Your task to perform on an android device: make emails show in primary in the gmail app Image 0: 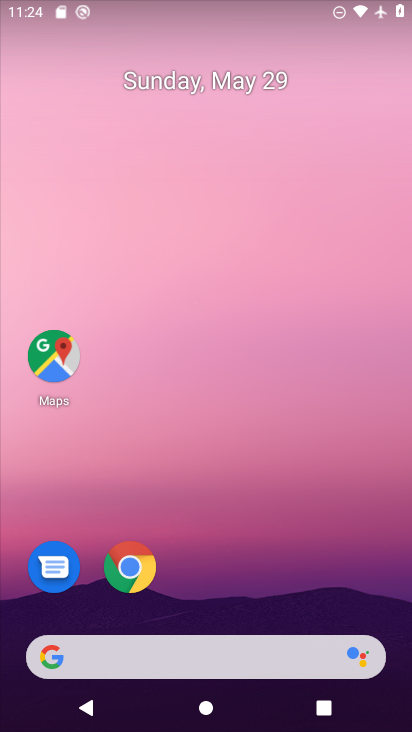
Step 0: drag from (358, 601) to (323, 40)
Your task to perform on an android device: make emails show in primary in the gmail app Image 1: 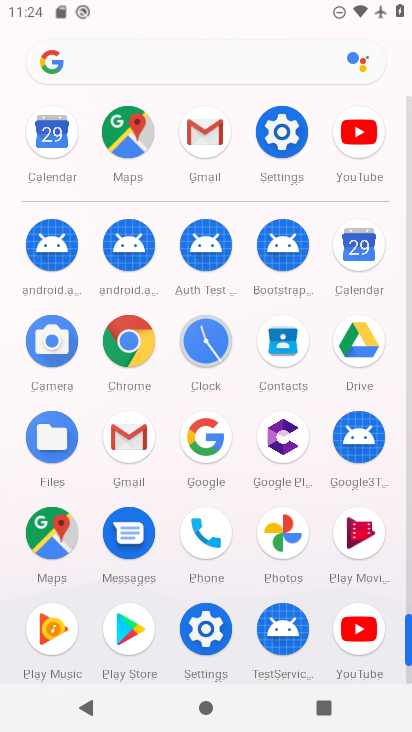
Step 1: click (409, 676)
Your task to perform on an android device: make emails show in primary in the gmail app Image 2: 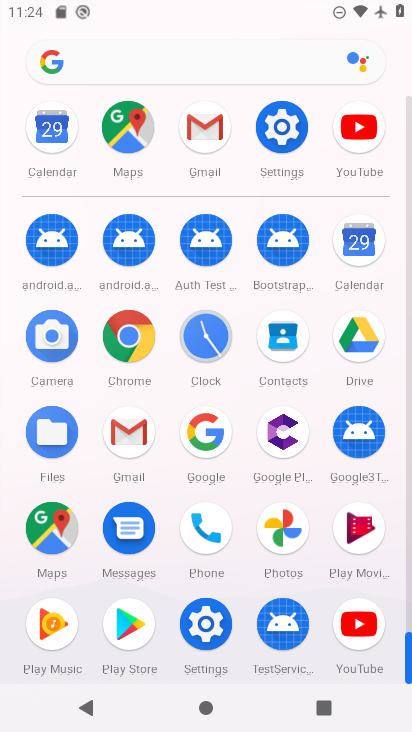
Step 2: click (128, 431)
Your task to perform on an android device: make emails show in primary in the gmail app Image 3: 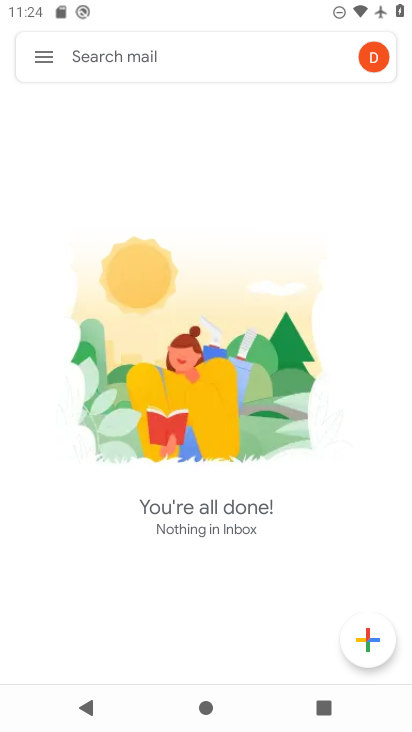
Step 3: click (41, 61)
Your task to perform on an android device: make emails show in primary in the gmail app Image 4: 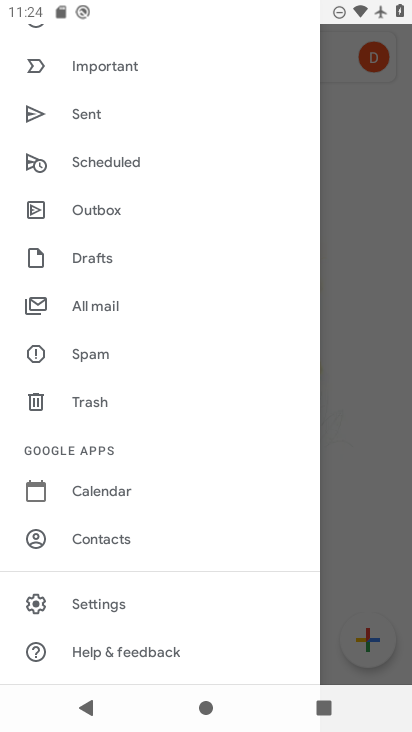
Step 4: click (102, 596)
Your task to perform on an android device: make emails show in primary in the gmail app Image 5: 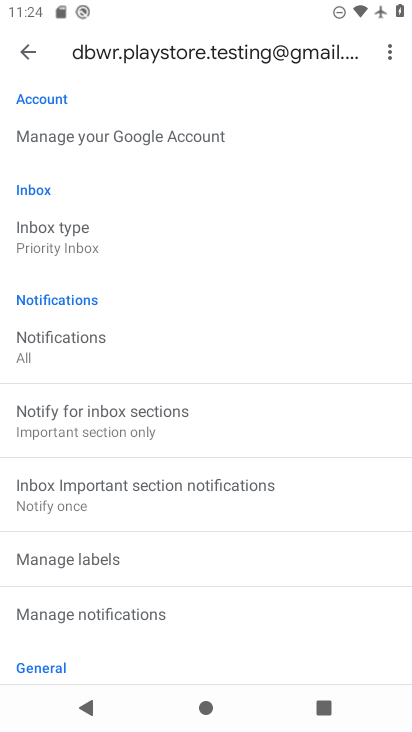
Step 5: drag from (179, 177) to (263, 518)
Your task to perform on an android device: make emails show in primary in the gmail app Image 6: 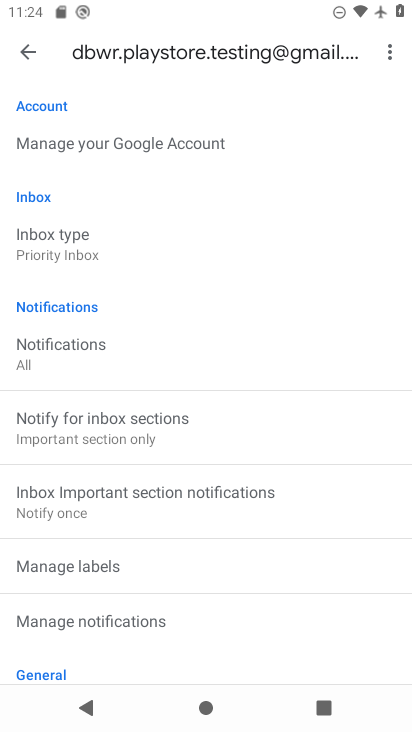
Step 6: click (41, 230)
Your task to perform on an android device: make emails show in primary in the gmail app Image 7: 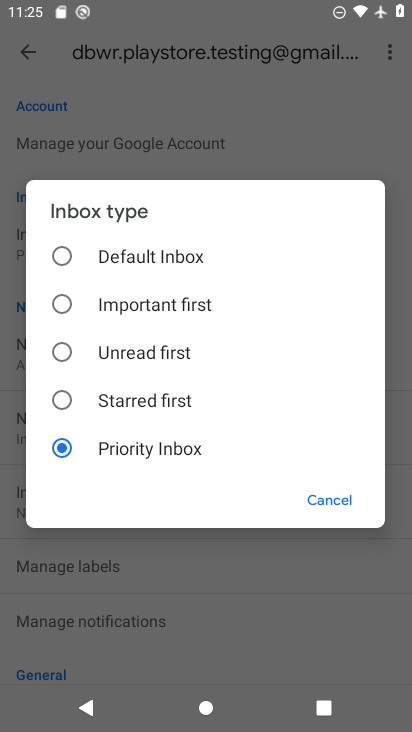
Step 7: click (60, 257)
Your task to perform on an android device: make emails show in primary in the gmail app Image 8: 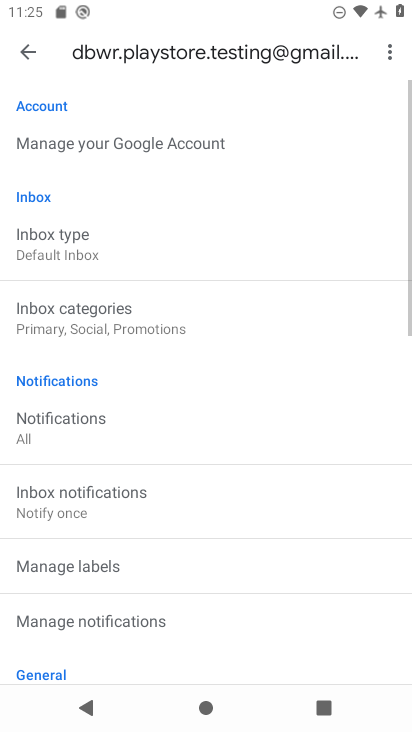
Step 8: click (81, 311)
Your task to perform on an android device: make emails show in primary in the gmail app Image 9: 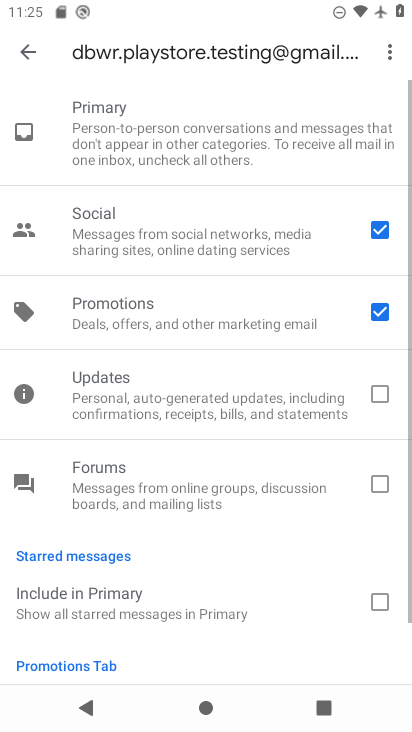
Step 9: click (380, 232)
Your task to perform on an android device: make emails show in primary in the gmail app Image 10: 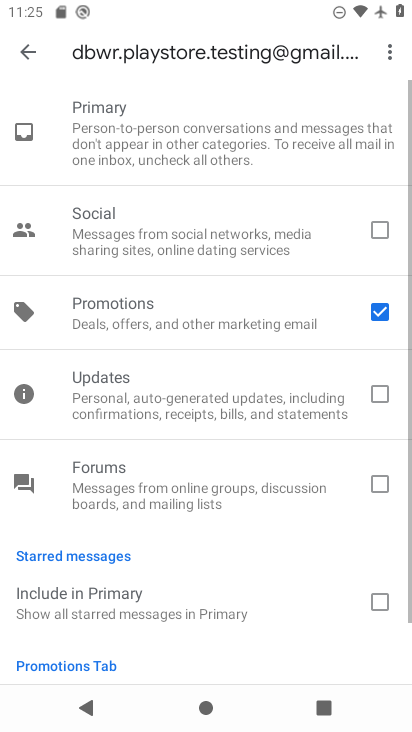
Step 10: click (377, 308)
Your task to perform on an android device: make emails show in primary in the gmail app Image 11: 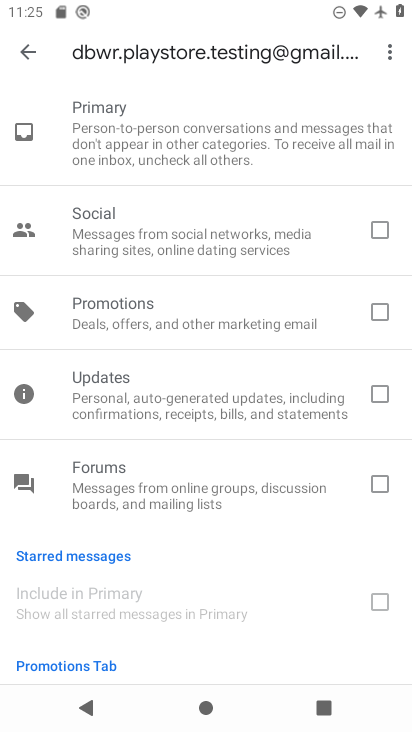
Step 11: task complete